Your task to perform on an android device: Search for Italian restaurants on Maps Image 0: 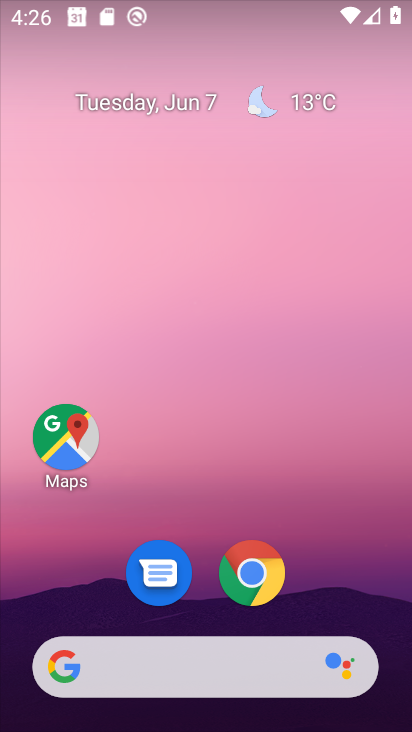
Step 0: press home button
Your task to perform on an android device: Search for Italian restaurants on Maps Image 1: 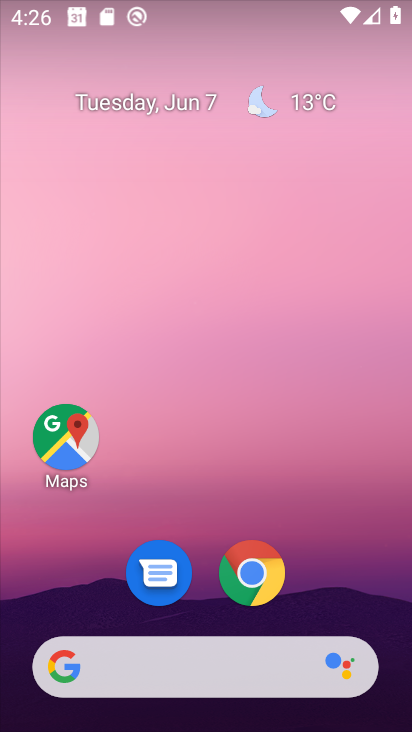
Step 1: click (237, 589)
Your task to perform on an android device: Search for Italian restaurants on Maps Image 2: 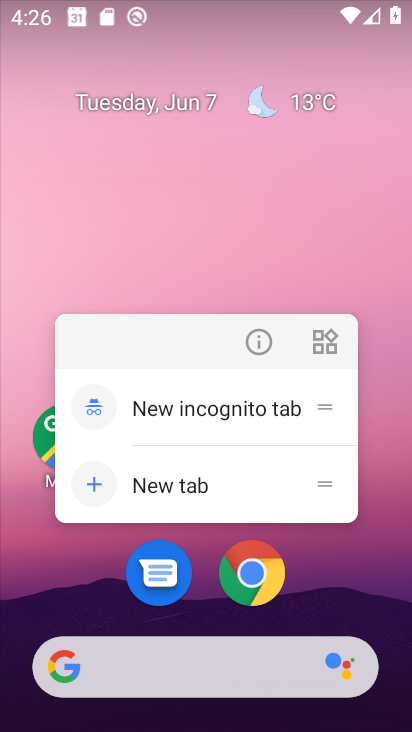
Step 2: click (269, 585)
Your task to perform on an android device: Search for Italian restaurants on Maps Image 3: 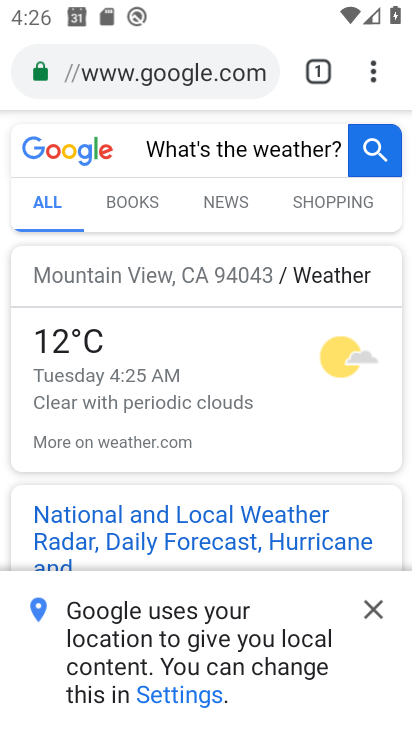
Step 3: drag from (370, 62) to (389, 128)
Your task to perform on an android device: Search for Italian restaurants on Maps Image 4: 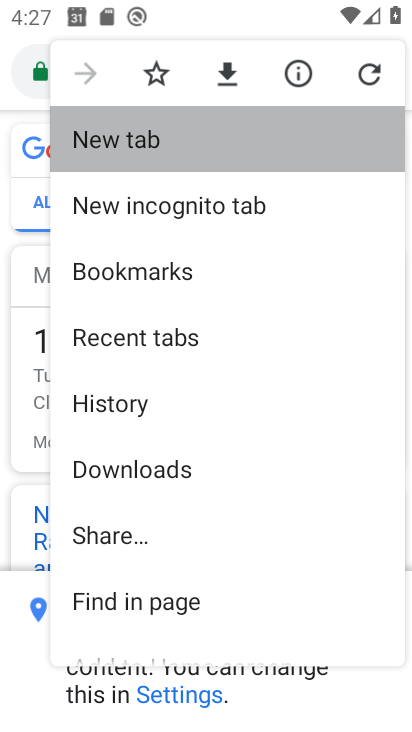
Step 4: press home button
Your task to perform on an android device: Search for Italian restaurants on Maps Image 5: 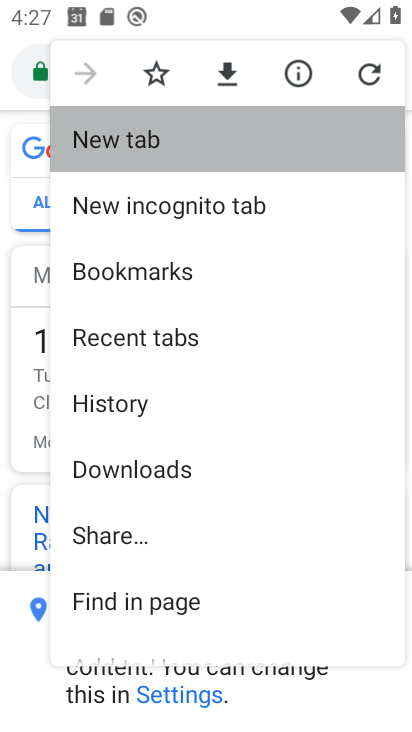
Step 5: drag from (389, 128) to (410, 605)
Your task to perform on an android device: Search for Italian restaurants on Maps Image 6: 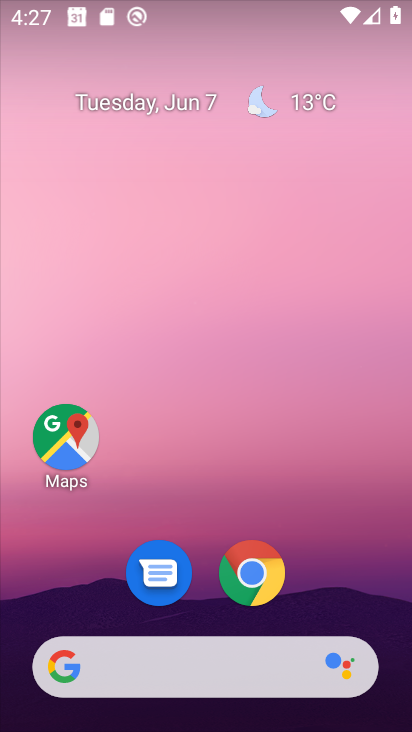
Step 6: click (45, 451)
Your task to perform on an android device: Search for Italian restaurants on Maps Image 7: 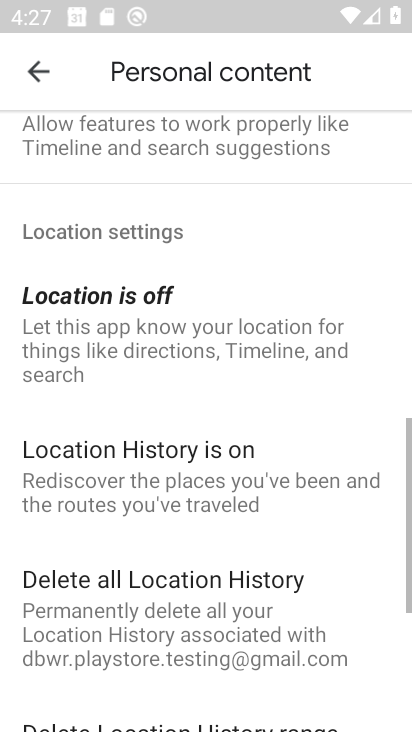
Step 7: click (45, 83)
Your task to perform on an android device: Search for Italian restaurants on Maps Image 8: 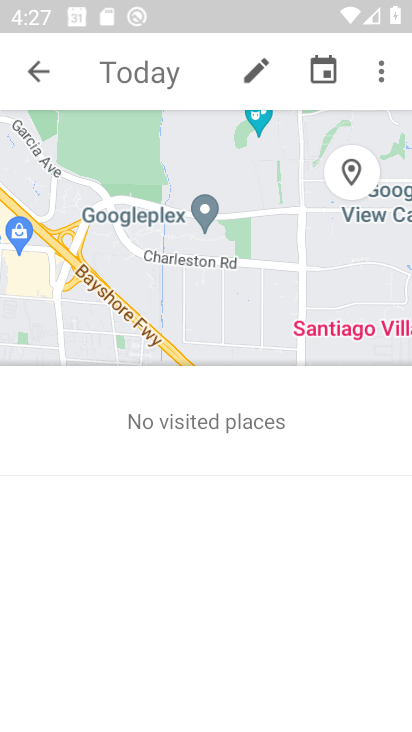
Step 8: click (49, 83)
Your task to perform on an android device: Search for Italian restaurants on Maps Image 9: 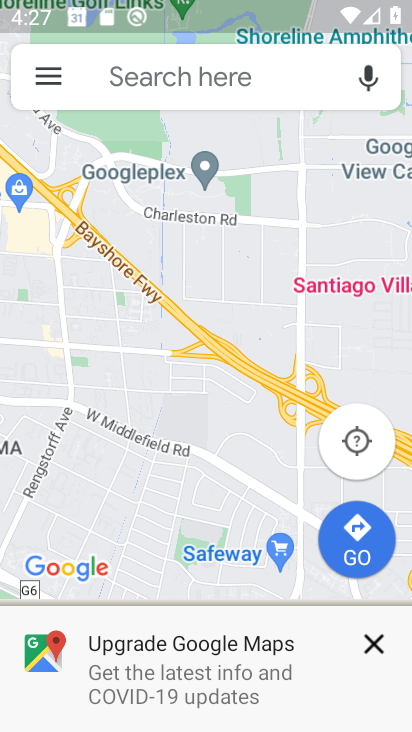
Step 9: click (126, 69)
Your task to perform on an android device: Search for Italian restaurants on Maps Image 10: 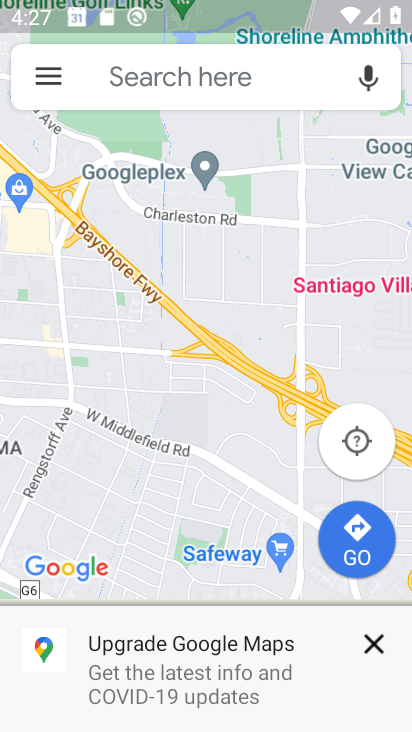
Step 10: click (126, 69)
Your task to perform on an android device: Search for Italian restaurants on Maps Image 11: 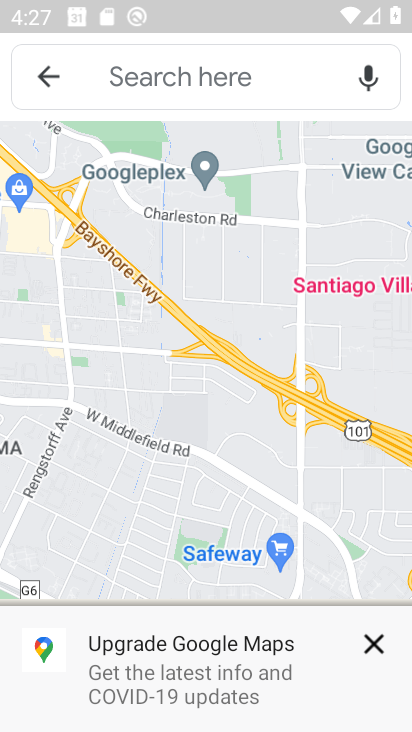
Step 11: click (126, 69)
Your task to perform on an android device: Search for Italian restaurants on Maps Image 12: 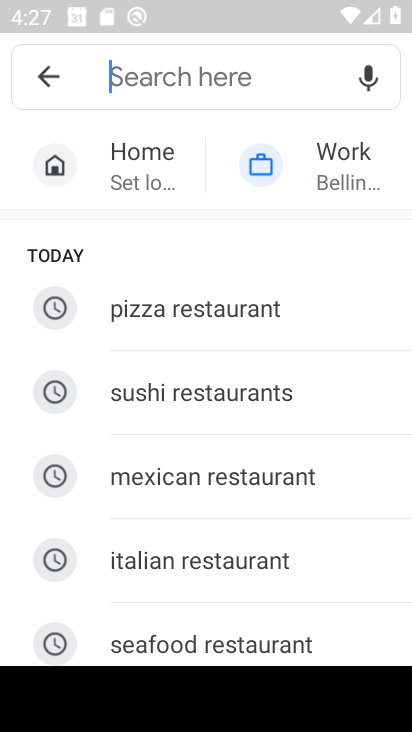
Step 12: type "Italian restaurants "
Your task to perform on an android device: Search for Italian restaurants on Maps Image 13: 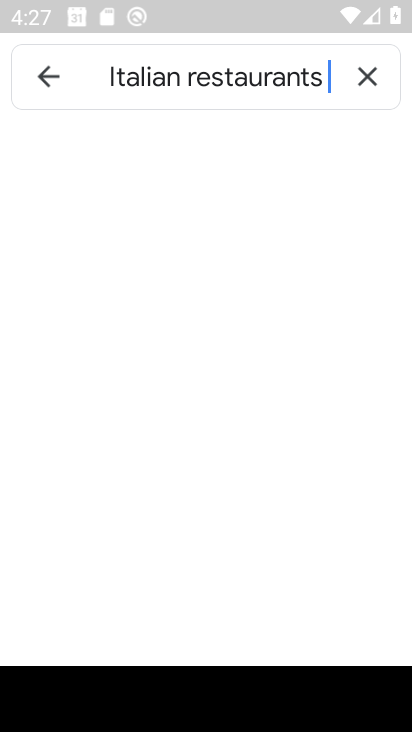
Step 13: type ""
Your task to perform on an android device: Search for Italian restaurants on Maps Image 14: 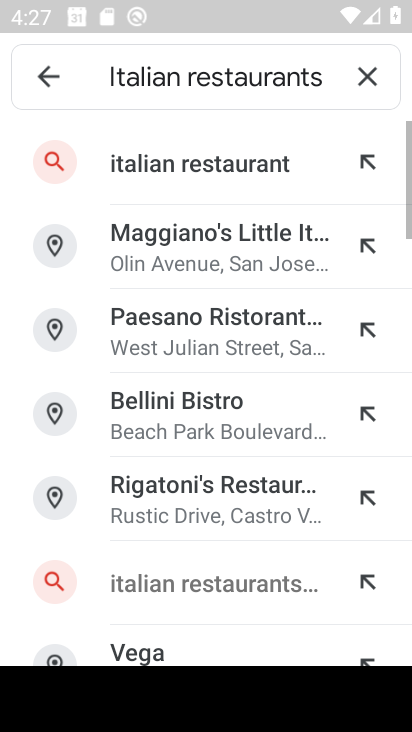
Step 14: click (216, 165)
Your task to perform on an android device: Search for Italian restaurants on Maps Image 15: 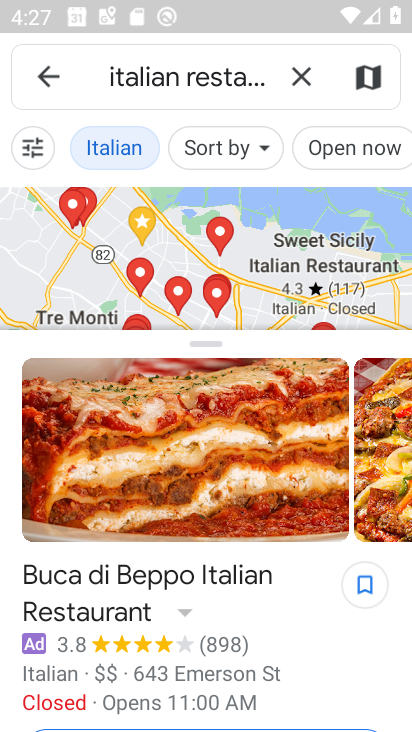
Step 15: task complete